Your task to perform on an android device: Open maps Image 0: 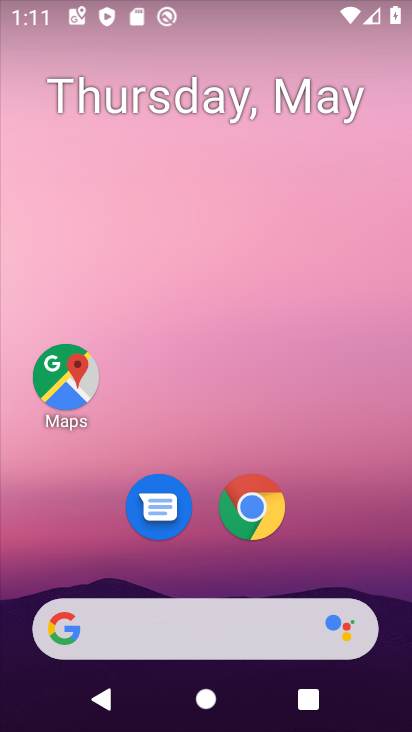
Step 0: drag from (337, 643) to (236, 13)
Your task to perform on an android device: Open maps Image 1: 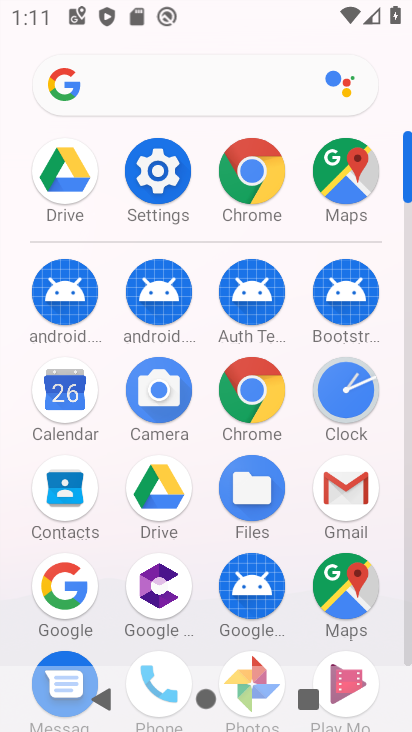
Step 1: click (353, 591)
Your task to perform on an android device: Open maps Image 2: 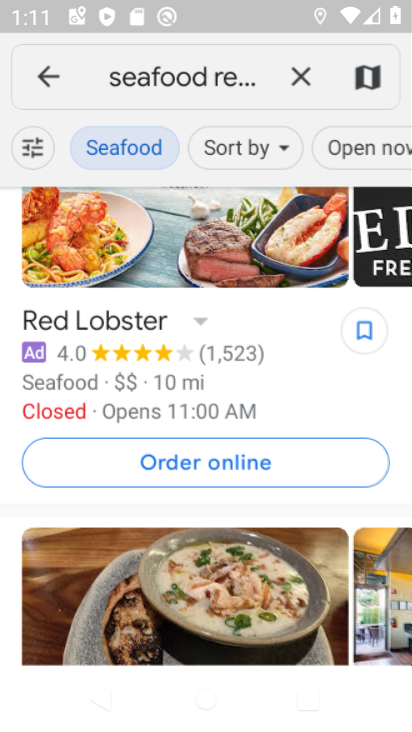
Step 2: task complete